Your task to perform on an android device: Add logitech g pro to the cart on bestbuy Image 0: 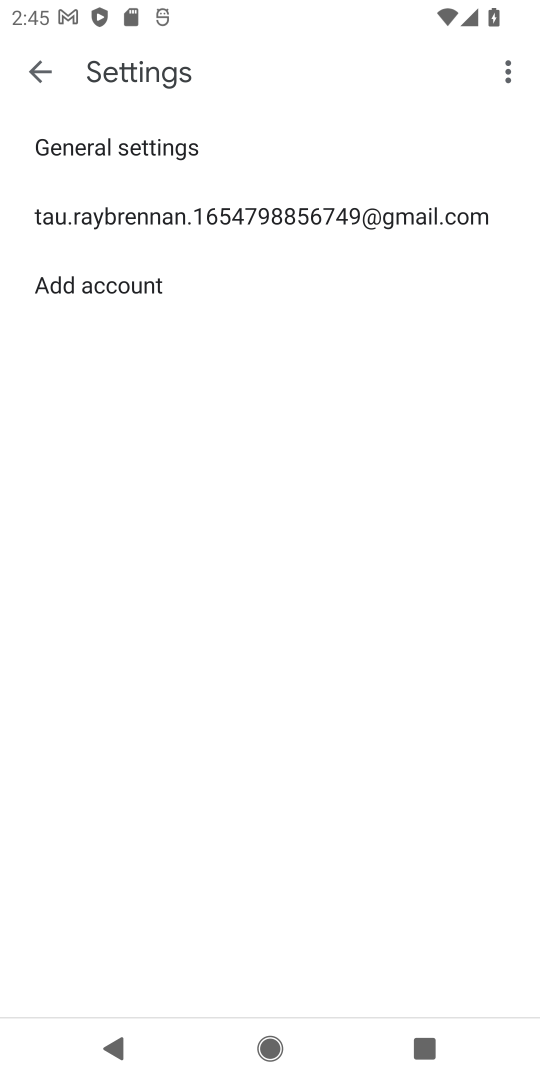
Step 0: press home button
Your task to perform on an android device: Add logitech g pro to the cart on bestbuy Image 1: 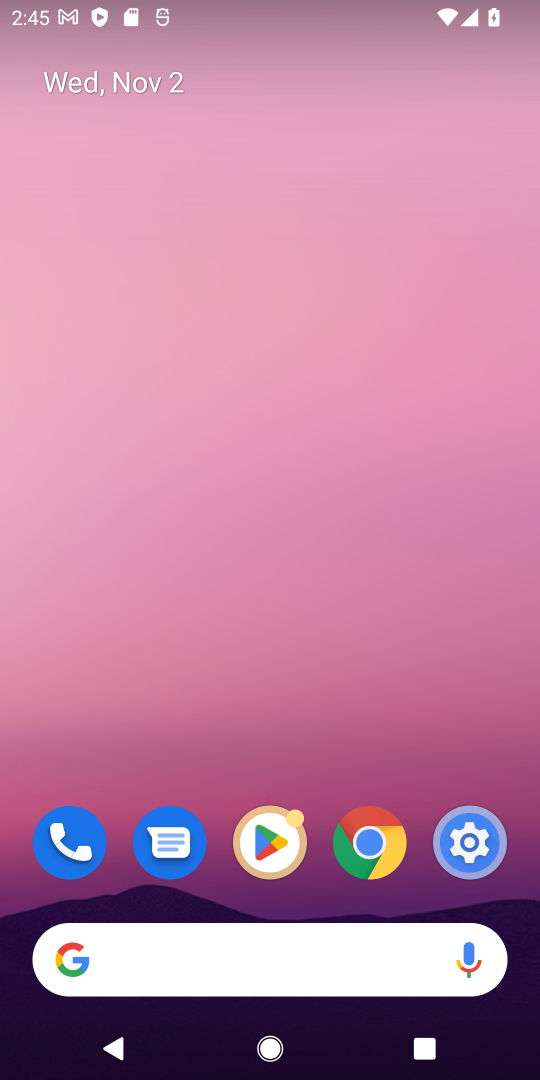
Step 1: click (254, 943)
Your task to perform on an android device: Add logitech g pro to the cart on bestbuy Image 2: 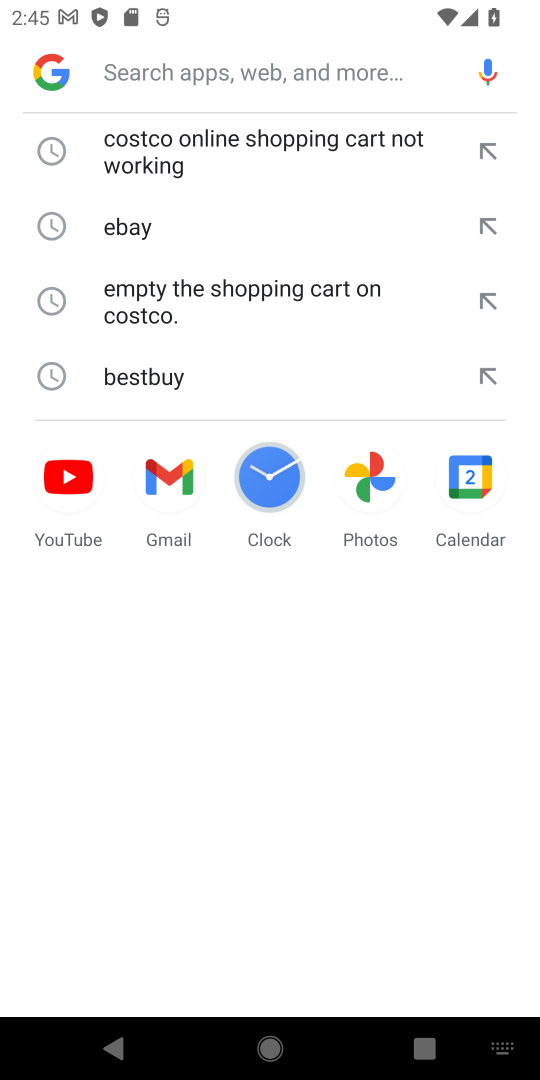
Step 2: click (164, 369)
Your task to perform on an android device: Add logitech g pro to the cart on bestbuy Image 3: 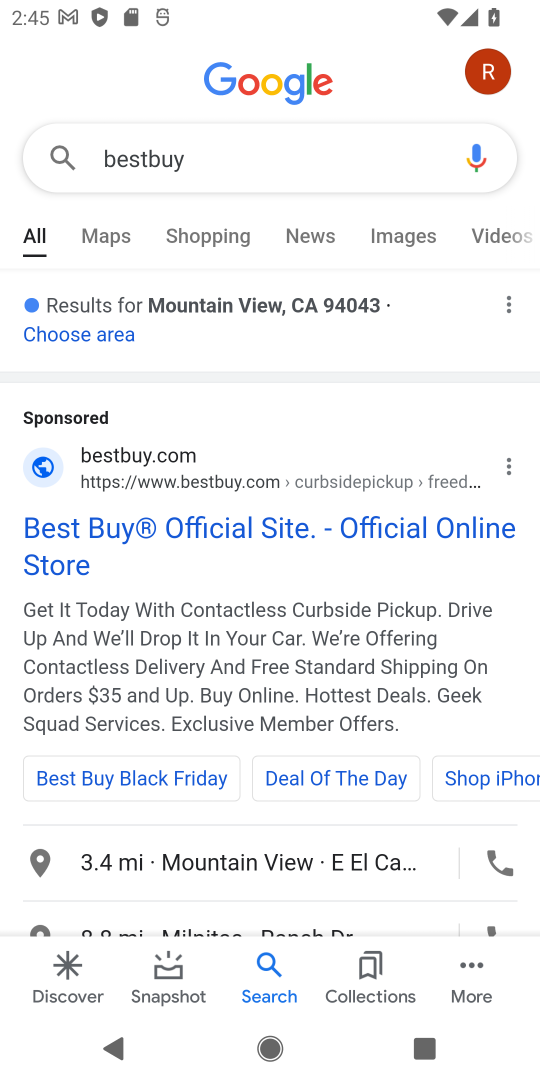
Step 3: drag from (248, 729) to (265, 262)
Your task to perform on an android device: Add logitech g pro to the cart on bestbuy Image 4: 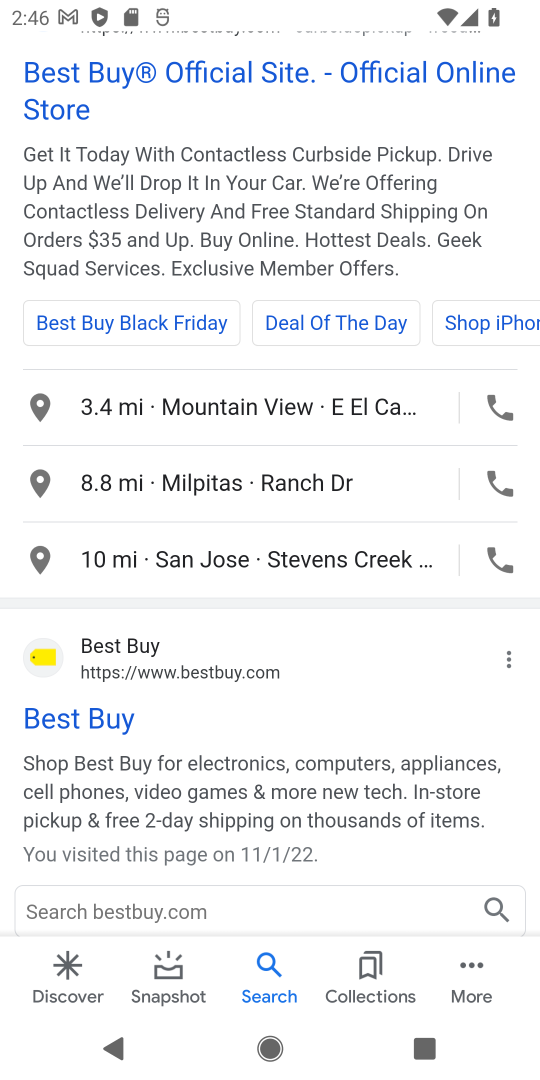
Step 4: click (60, 726)
Your task to perform on an android device: Add logitech g pro to the cart on bestbuy Image 5: 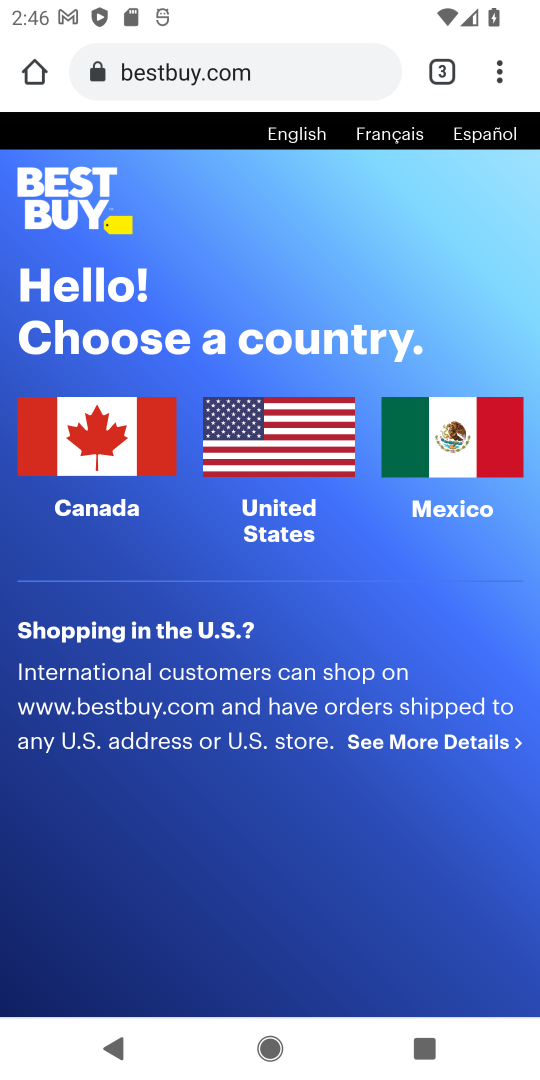
Step 5: click (245, 444)
Your task to perform on an android device: Add logitech g pro to the cart on bestbuy Image 6: 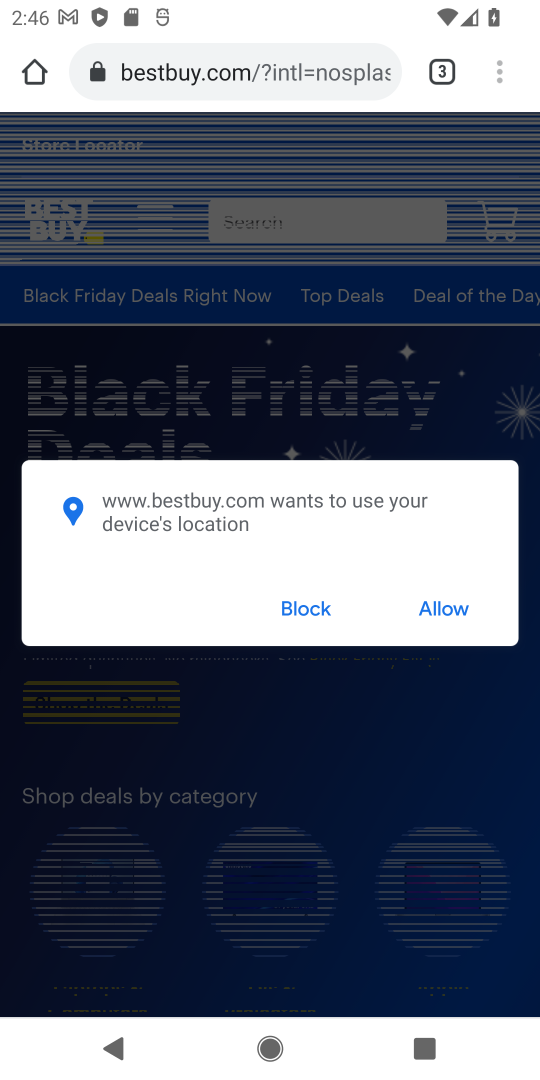
Step 6: click (445, 612)
Your task to perform on an android device: Add logitech g pro to the cart on bestbuy Image 7: 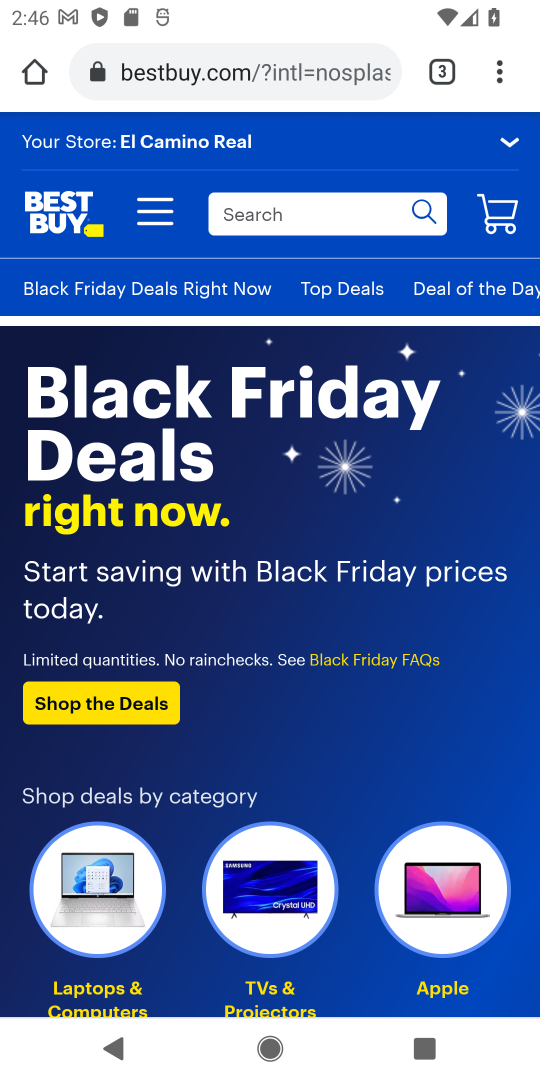
Step 7: drag from (320, 761) to (312, 347)
Your task to perform on an android device: Add logitech g pro to the cart on bestbuy Image 8: 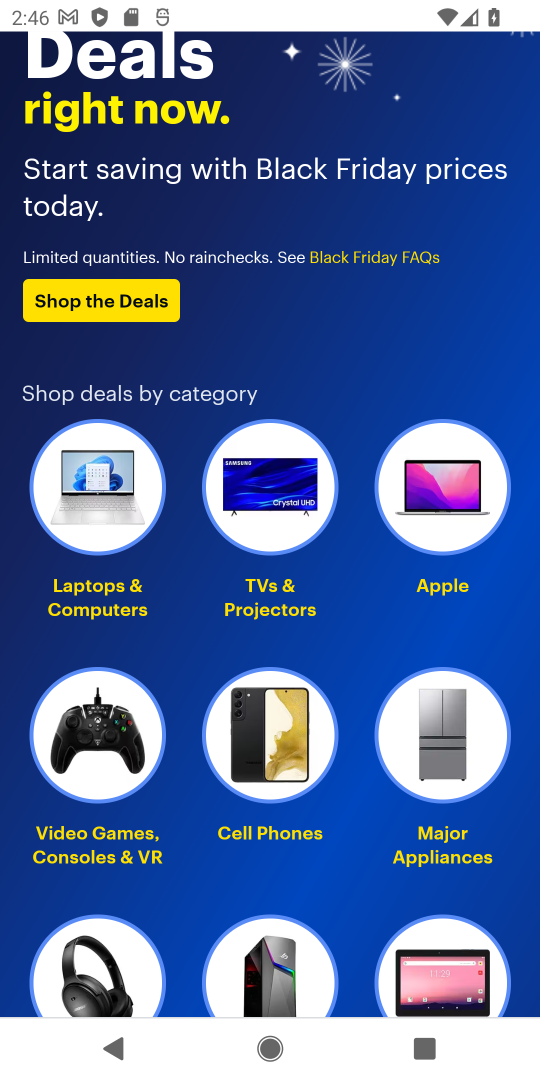
Step 8: drag from (328, 321) to (277, 640)
Your task to perform on an android device: Add logitech g pro to the cart on bestbuy Image 9: 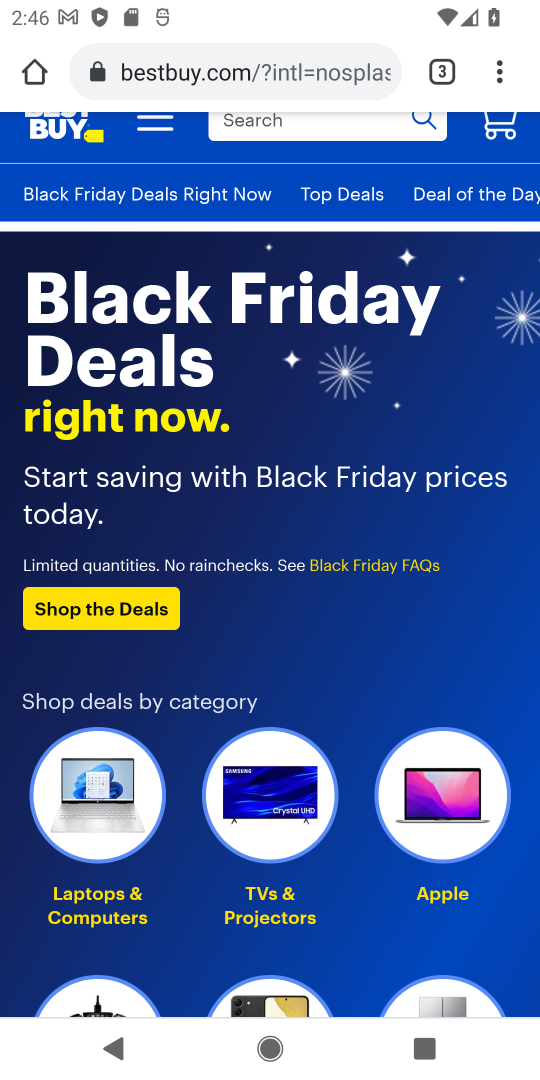
Step 9: click (251, 127)
Your task to perform on an android device: Add logitech g pro to the cart on bestbuy Image 10: 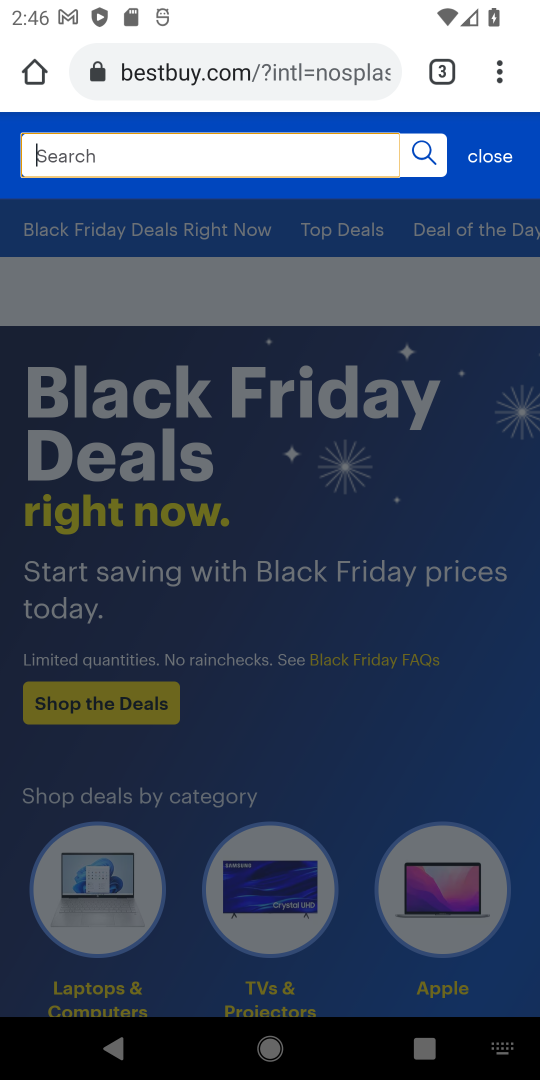
Step 10: type "logitech g pro"
Your task to perform on an android device: Add logitech g pro to the cart on bestbuy Image 11: 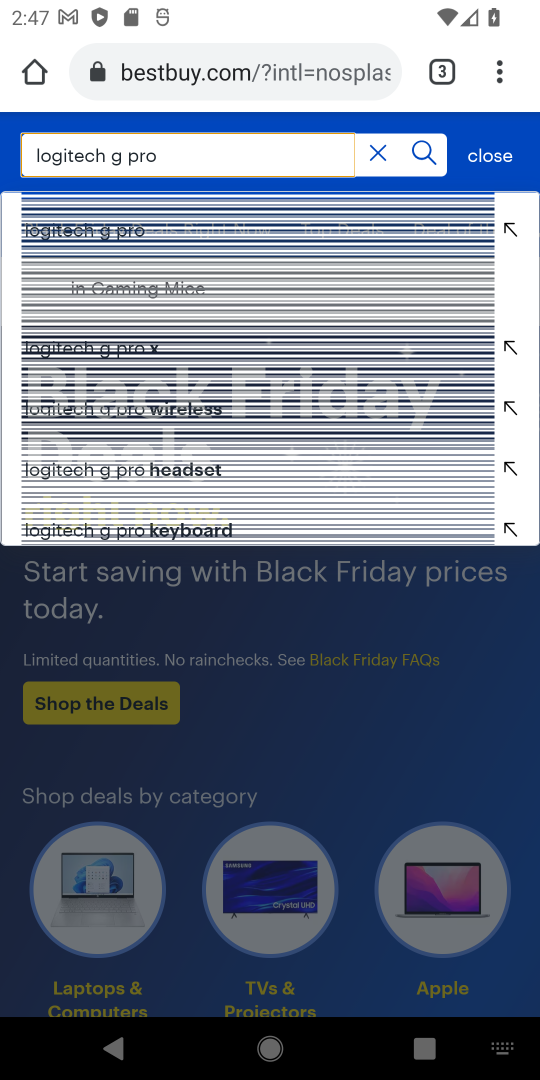
Step 11: click (130, 233)
Your task to perform on an android device: Add logitech g pro to the cart on bestbuy Image 12: 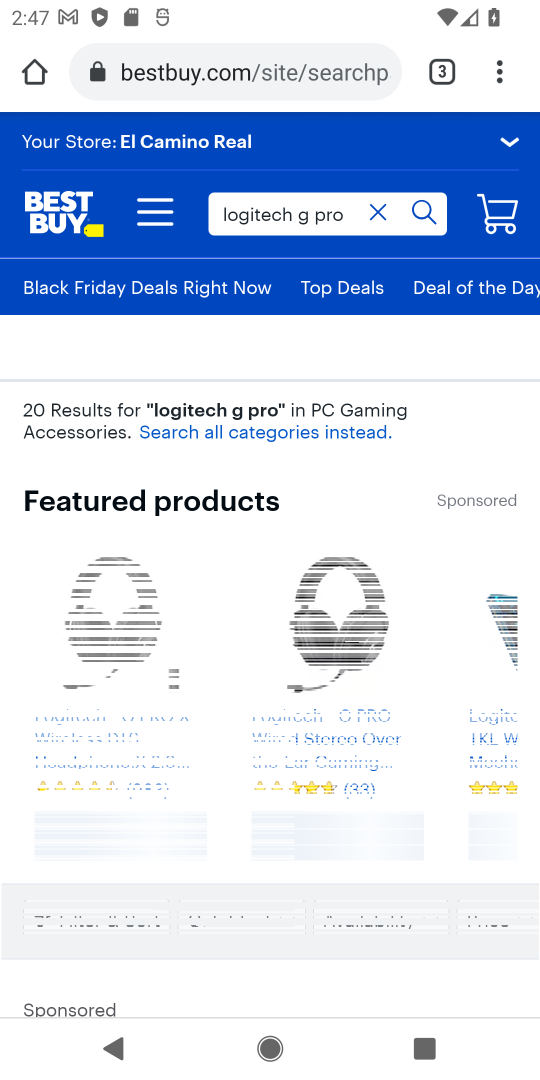
Step 12: drag from (434, 441) to (423, 238)
Your task to perform on an android device: Add logitech g pro to the cart on bestbuy Image 13: 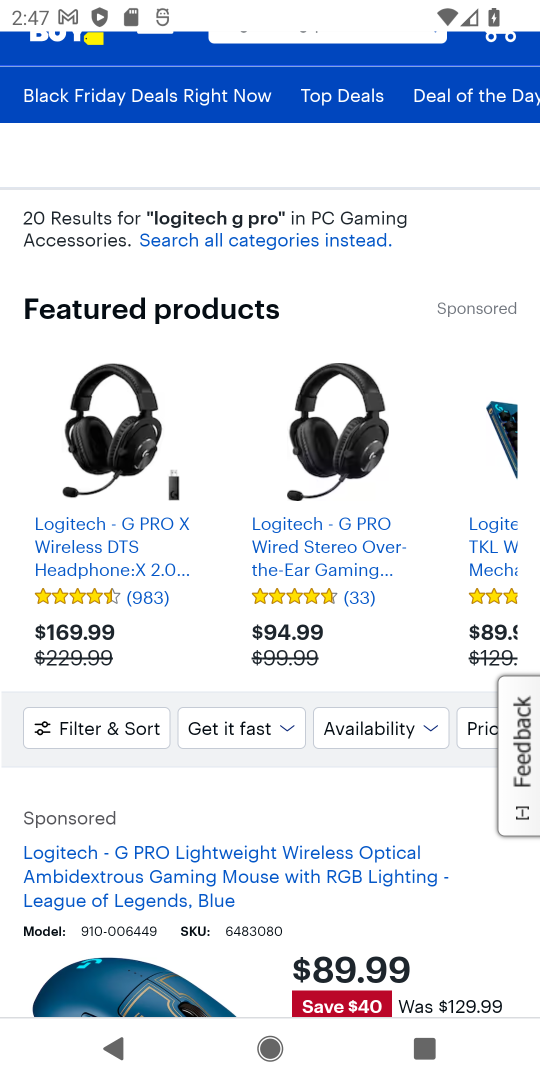
Step 13: drag from (275, 799) to (283, 435)
Your task to perform on an android device: Add logitech g pro to the cart on bestbuy Image 14: 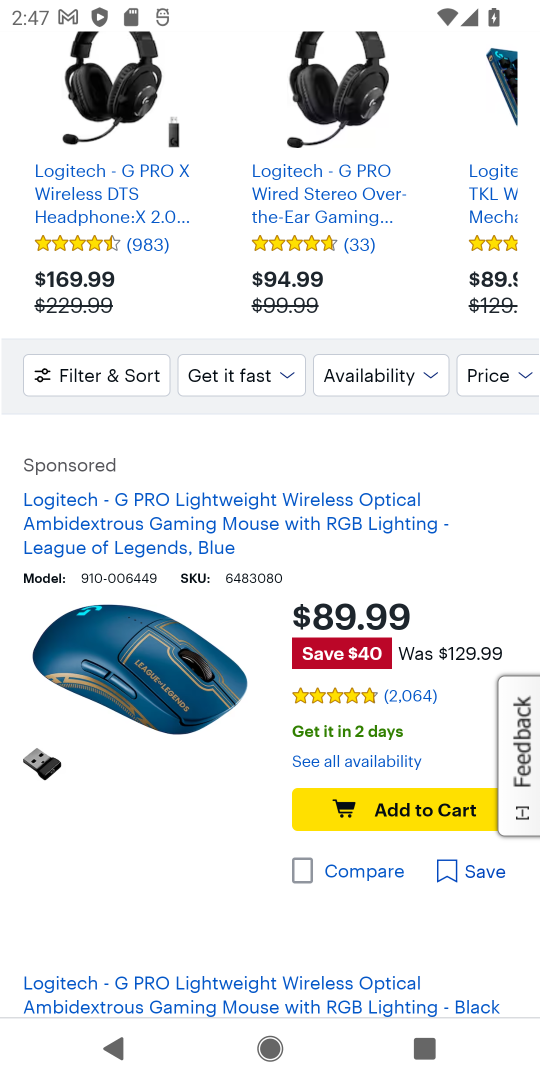
Step 14: click (368, 806)
Your task to perform on an android device: Add logitech g pro to the cart on bestbuy Image 15: 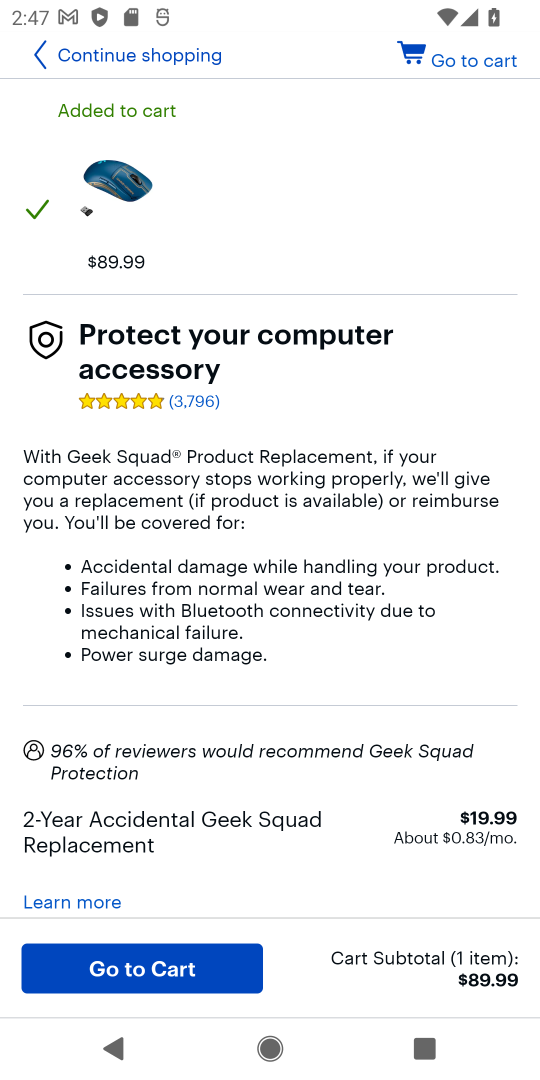
Step 15: click (153, 966)
Your task to perform on an android device: Add logitech g pro to the cart on bestbuy Image 16: 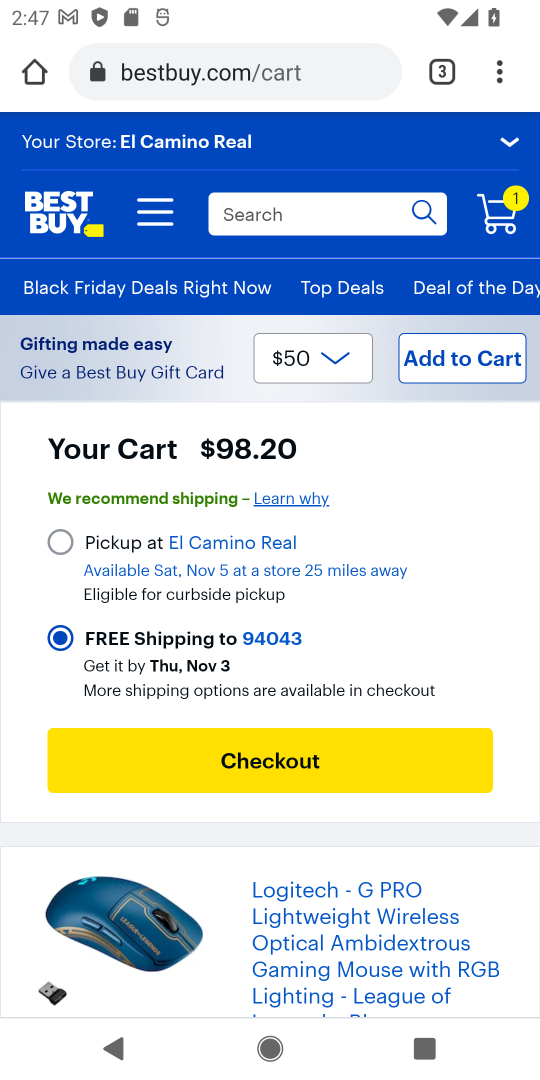
Step 16: task complete